Your task to perform on an android device: change text size in settings app Image 0: 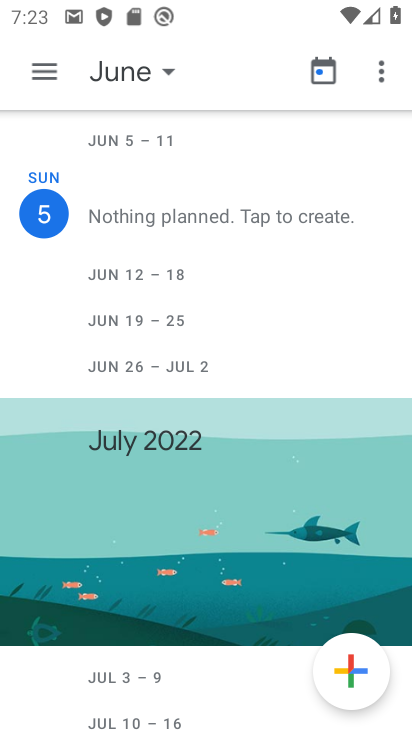
Step 0: press home button
Your task to perform on an android device: change text size in settings app Image 1: 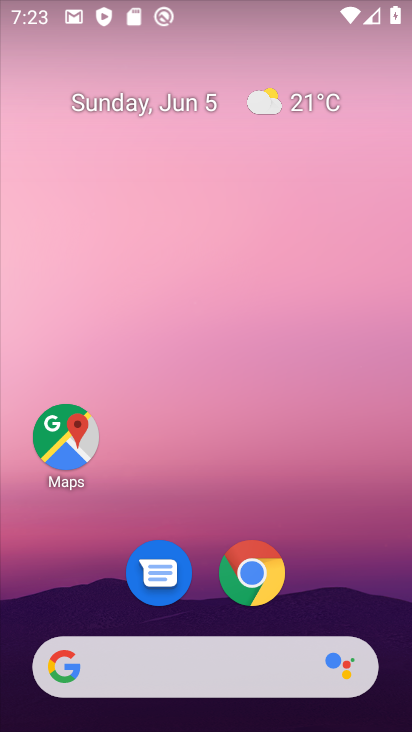
Step 1: drag from (224, 599) to (204, 301)
Your task to perform on an android device: change text size in settings app Image 2: 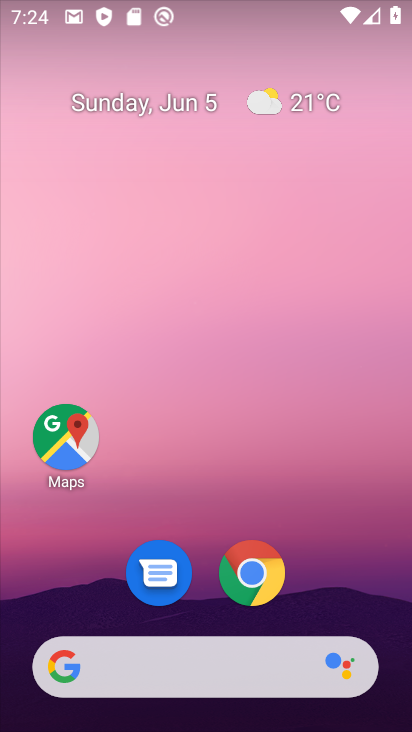
Step 2: drag from (216, 572) to (220, 223)
Your task to perform on an android device: change text size in settings app Image 3: 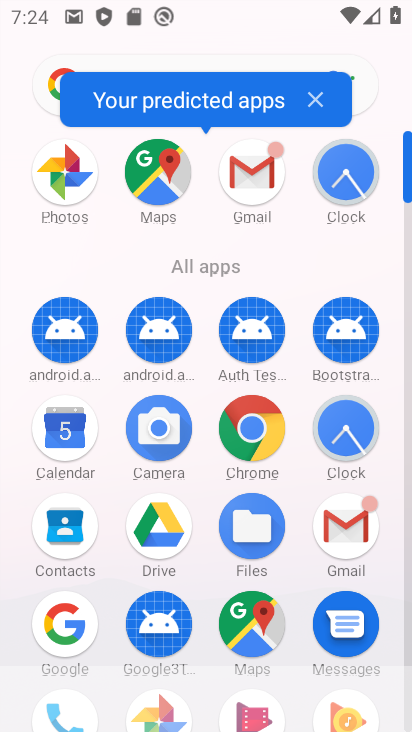
Step 3: drag from (304, 630) to (312, 205)
Your task to perform on an android device: change text size in settings app Image 4: 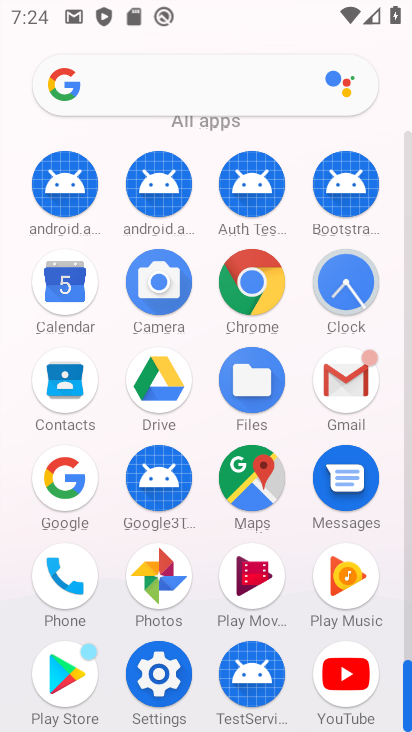
Step 4: click (163, 645)
Your task to perform on an android device: change text size in settings app Image 5: 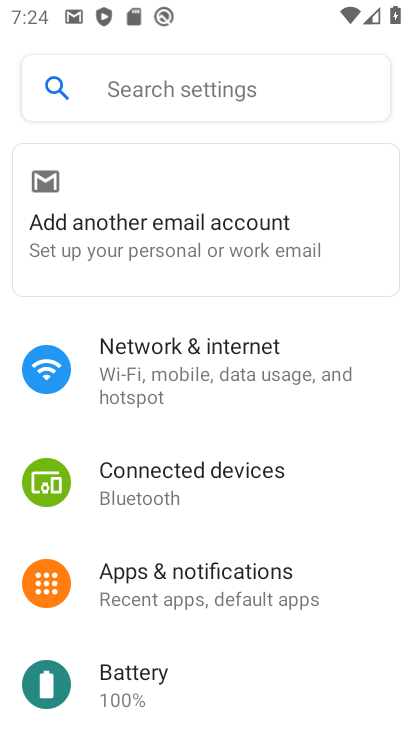
Step 5: drag from (235, 626) to (328, 55)
Your task to perform on an android device: change text size in settings app Image 6: 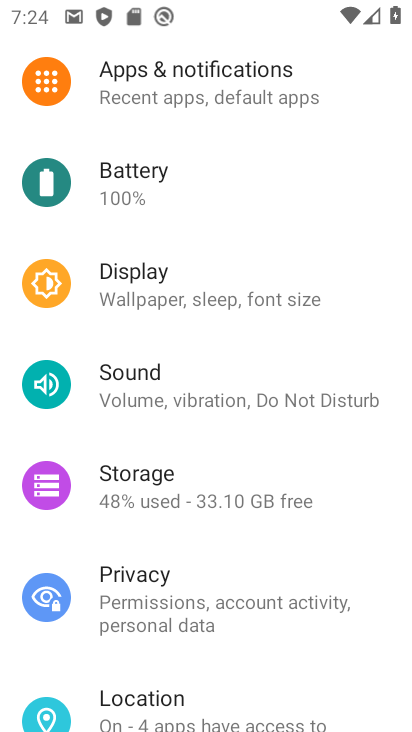
Step 6: drag from (201, 629) to (279, 85)
Your task to perform on an android device: change text size in settings app Image 7: 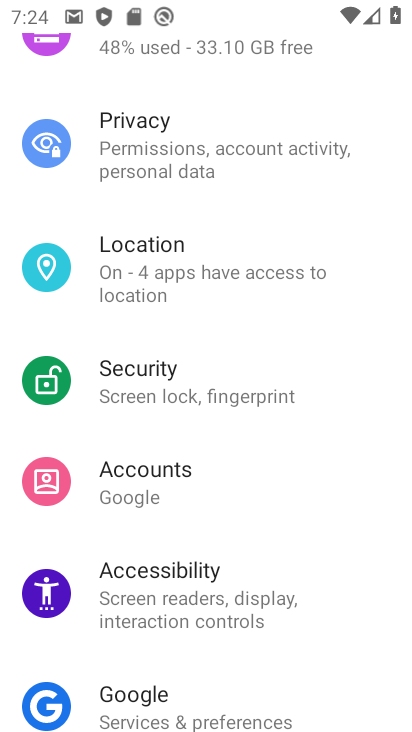
Step 7: drag from (203, 584) to (252, 244)
Your task to perform on an android device: change text size in settings app Image 8: 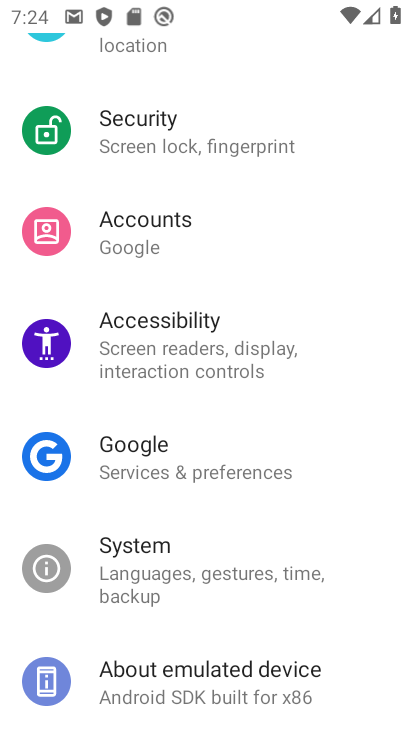
Step 8: click (227, 591)
Your task to perform on an android device: change text size in settings app Image 9: 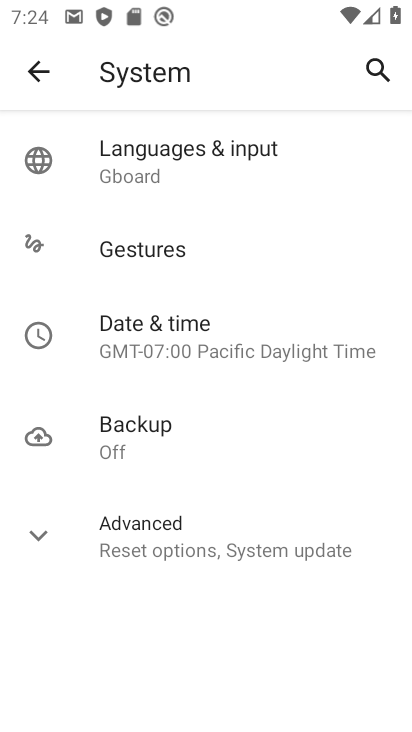
Step 9: click (27, 76)
Your task to perform on an android device: change text size in settings app Image 10: 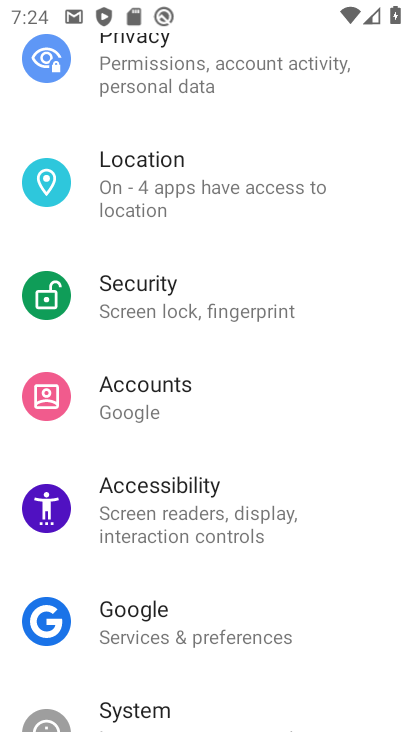
Step 10: click (166, 549)
Your task to perform on an android device: change text size in settings app Image 11: 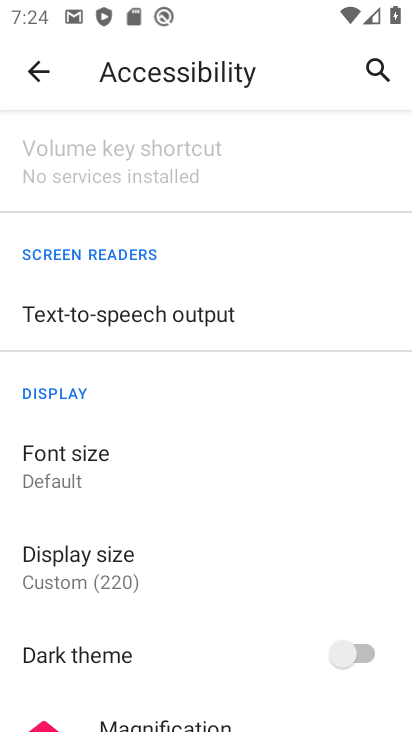
Step 11: click (61, 462)
Your task to perform on an android device: change text size in settings app Image 12: 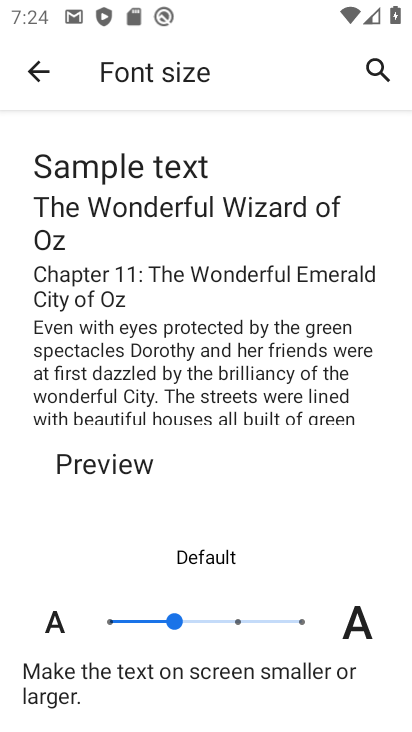
Step 12: click (241, 618)
Your task to perform on an android device: change text size in settings app Image 13: 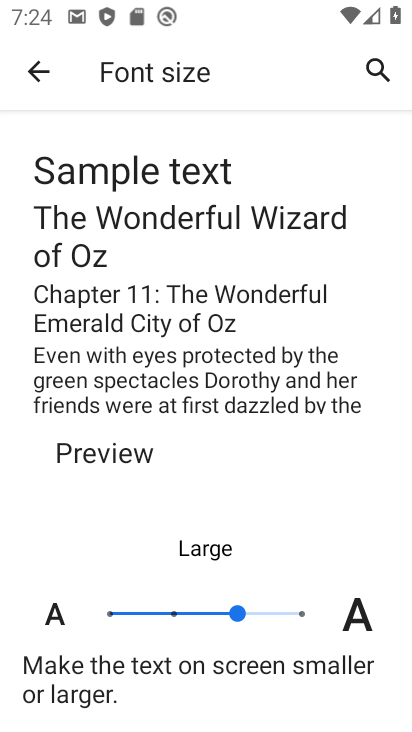
Step 13: task complete